Your task to perform on an android device: change alarm snooze length Image 0: 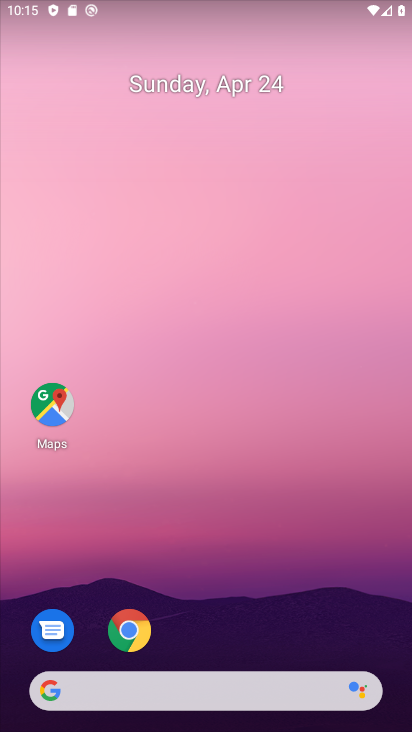
Step 0: drag from (213, 621) to (211, 175)
Your task to perform on an android device: change alarm snooze length Image 1: 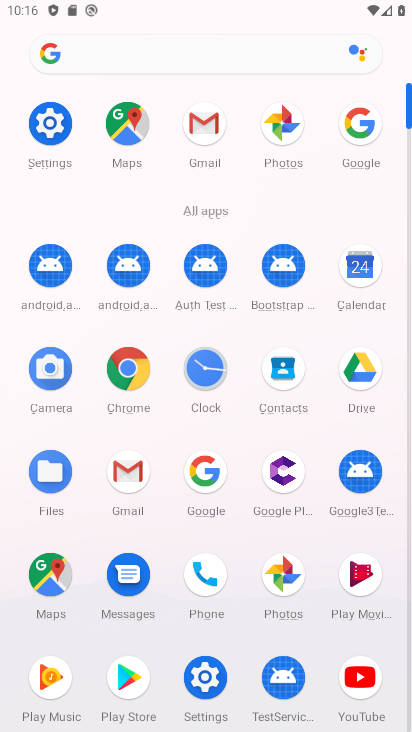
Step 1: click (186, 368)
Your task to perform on an android device: change alarm snooze length Image 2: 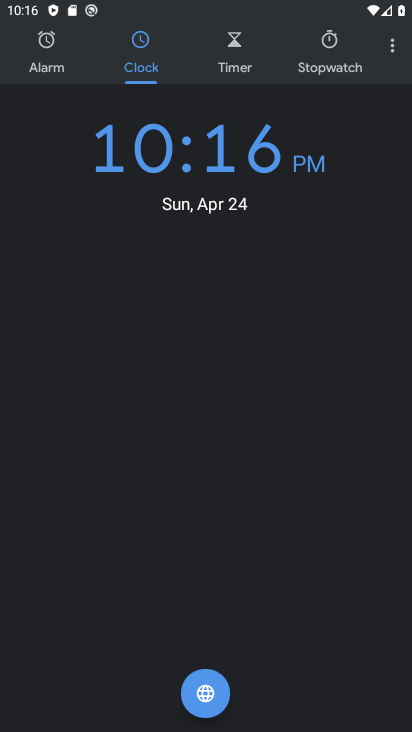
Step 2: click (391, 52)
Your task to perform on an android device: change alarm snooze length Image 3: 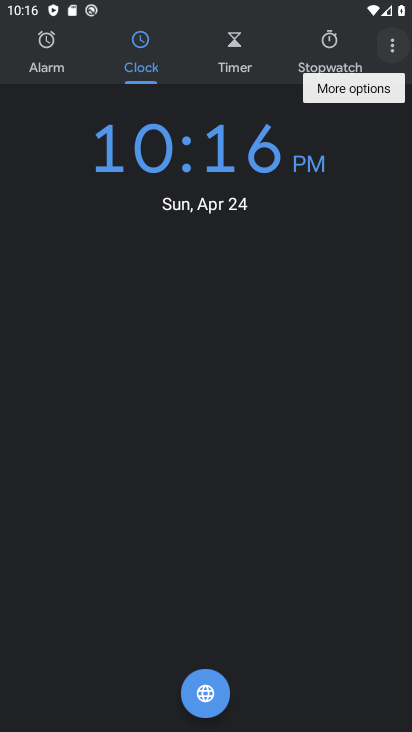
Step 3: click (391, 52)
Your task to perform on an android device: change alarm snooze length Image 4: 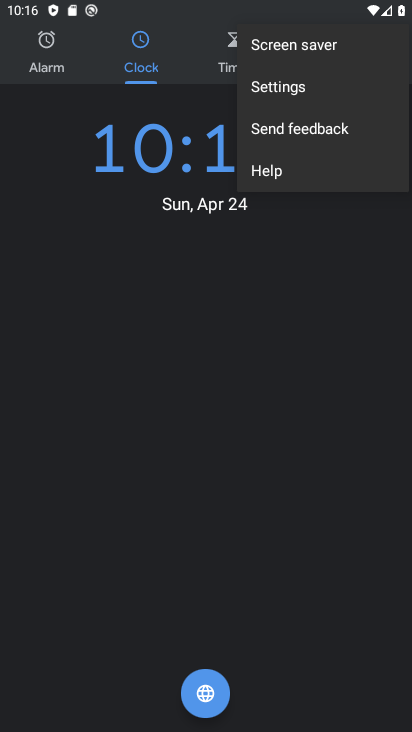
Step 4: click (323, 86)
Your task to perform on an android device: change alarm snooze length Image 5: 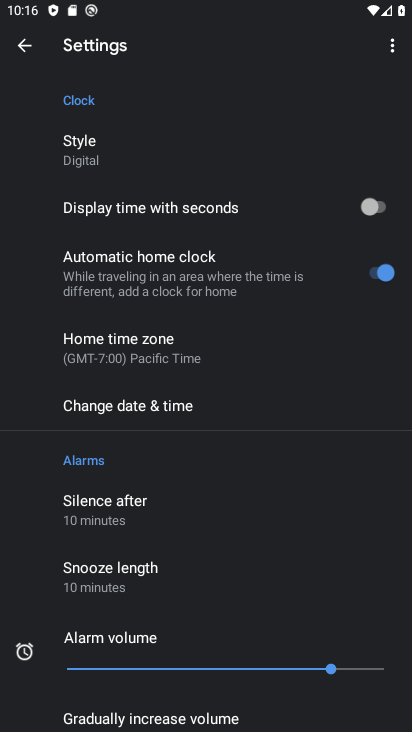
Step 5: click (158, 590)
Your task to perform on an android device: change alarm snooze length Image 6: 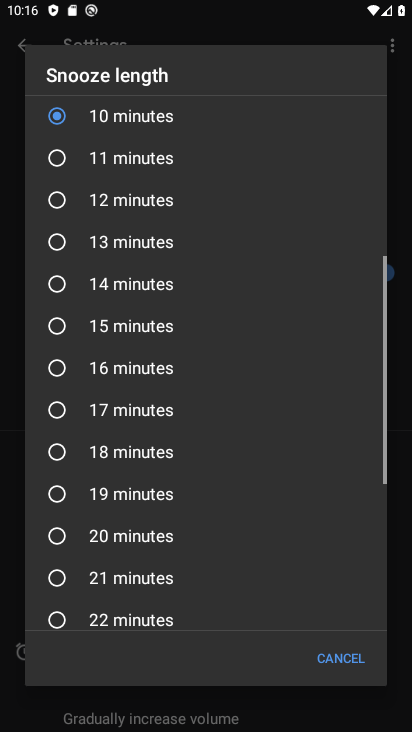
Step 6: click (138, 463)
Your task to perform on an android device: change alarm snooze length Image 7: 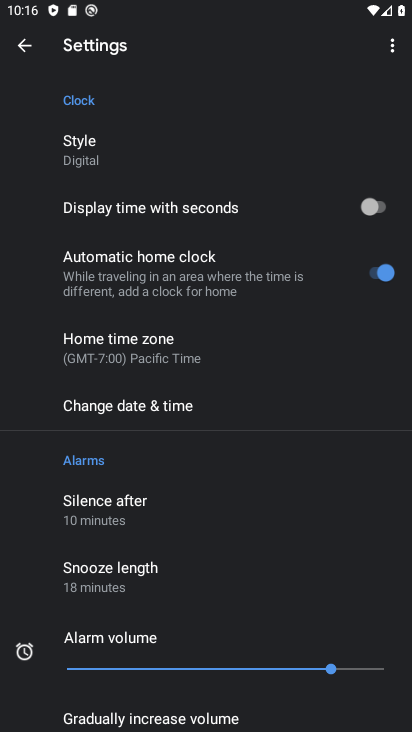
Step 7: task complete